Your task to perform on an android device: Open Yahoo.com Image 0: 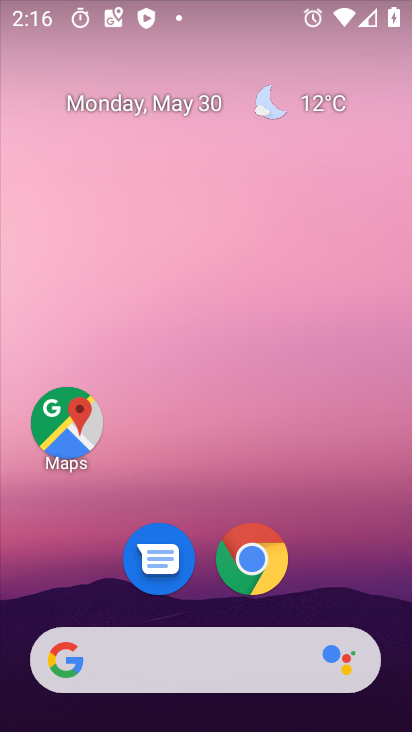
Step 0: click (238, 547)
Your task to perform on an android device: Open Yahoo.com Image 1: 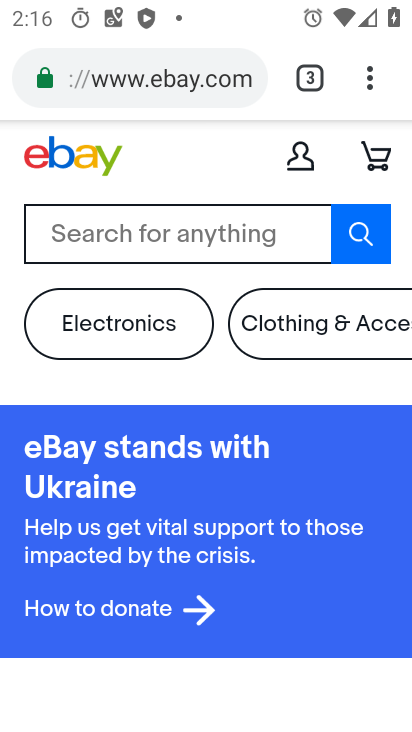
Step 1: click (304, 73)
Your task to perform on an android device: Open Yahoo.com Image 2: 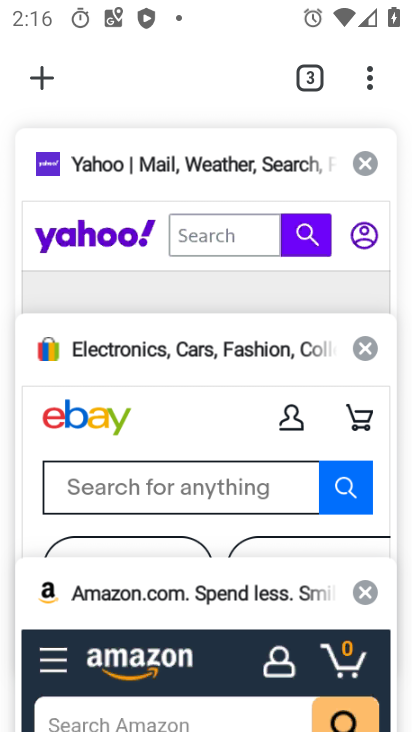
Step 2: click (81, 173)
Your task to perform on an android device: Open Yahoo.com Image 3: 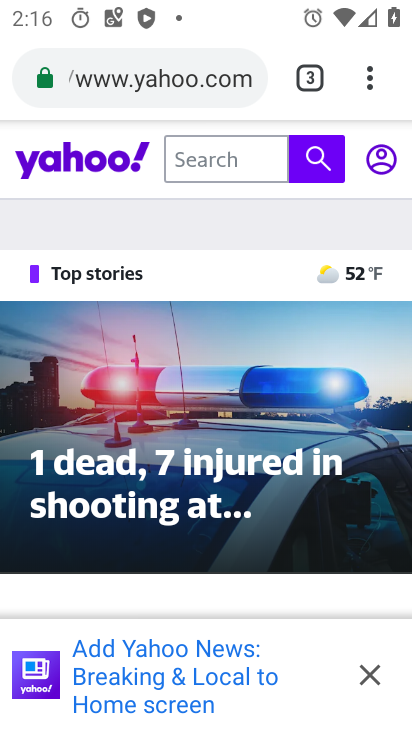
Step 3: task complete